Your task to perform on an android device: open sync settings in chrome Image 0: 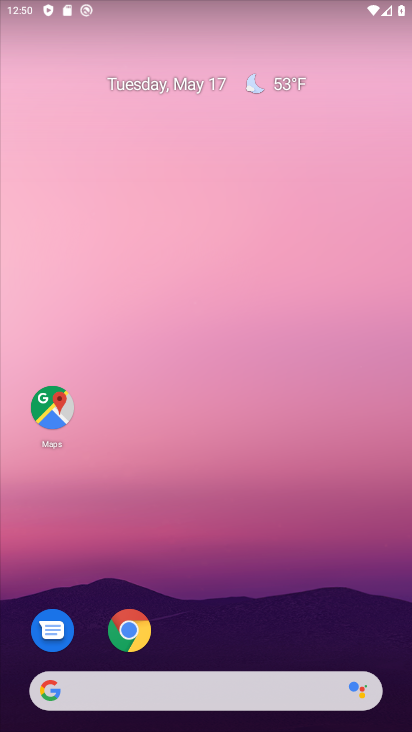
Step 0: drag from (204, 687) to (223, 135)
Your task to perform on an android device: open sync settings in chrome Image 1: 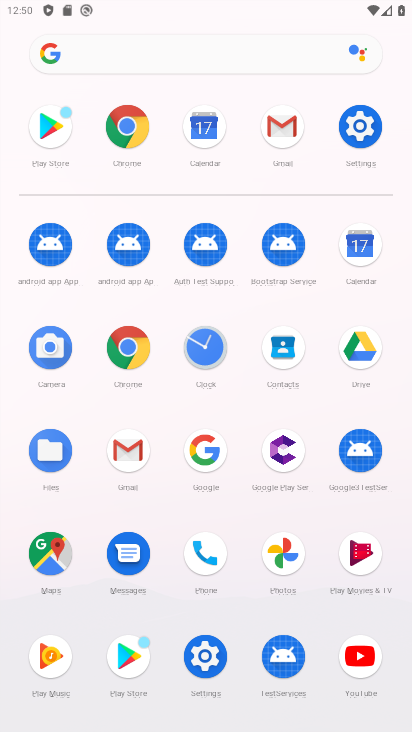
Step 1: click (126, 379)
Your task to perform on an android device: open sync settings in chrome Image 2: 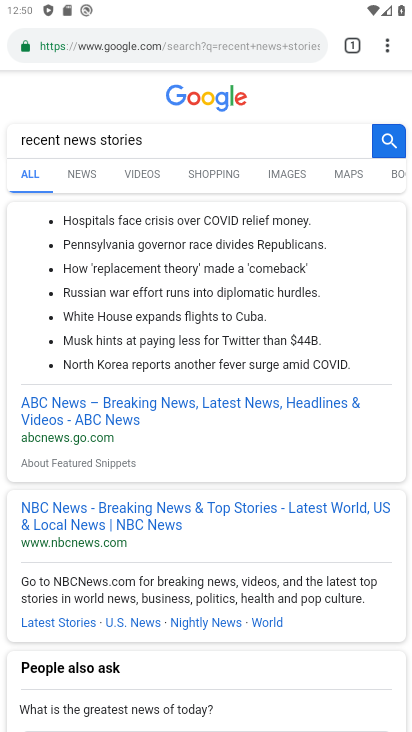
Step 2: click (387, 43)
Your task to perform on an android device: open sync settings in chrome Image 3: 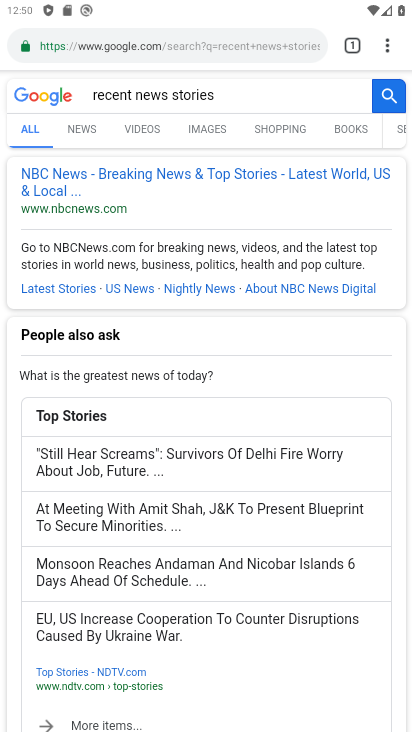
Step 3: click (389, 44)
Your task to perform on an android device: open sync settings in chrome Image 4: 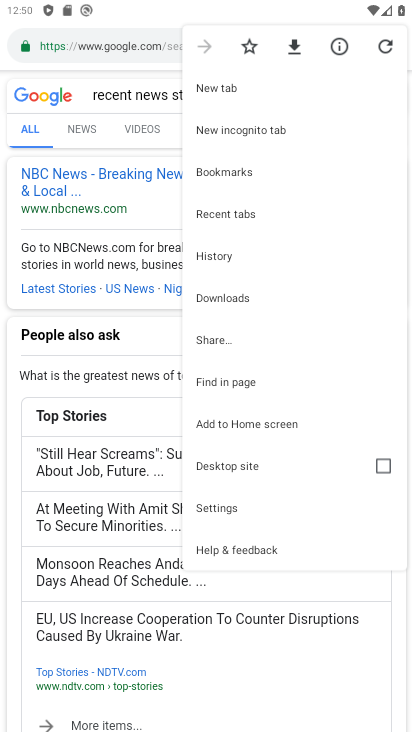
Step 4: click (168, 116)
Your task to perform on an android device: open sync settings in chrome Image 5: 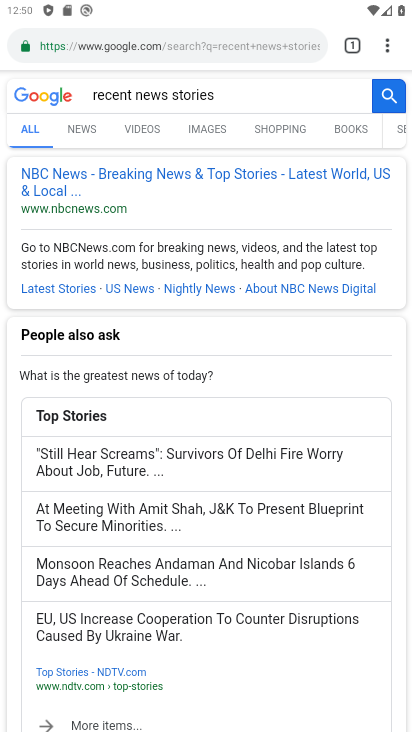
Step 5: click (391, 56)
Your task to perform on an android device: open sync settings in chrome Image 6: 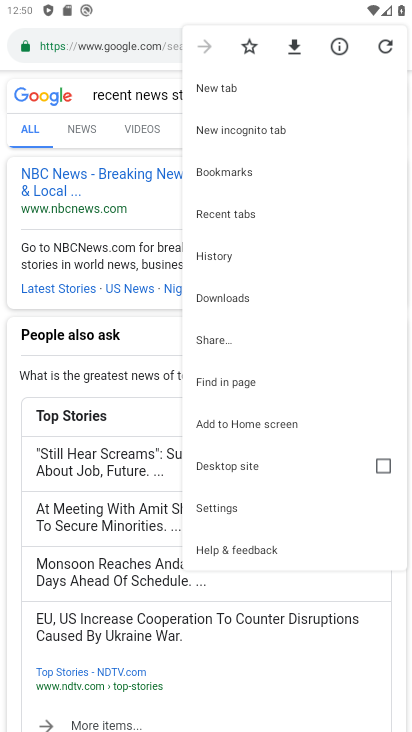
Step 6: click (221, 510)
Your task to perform on an android device: open sync settings in chrome Image 7: 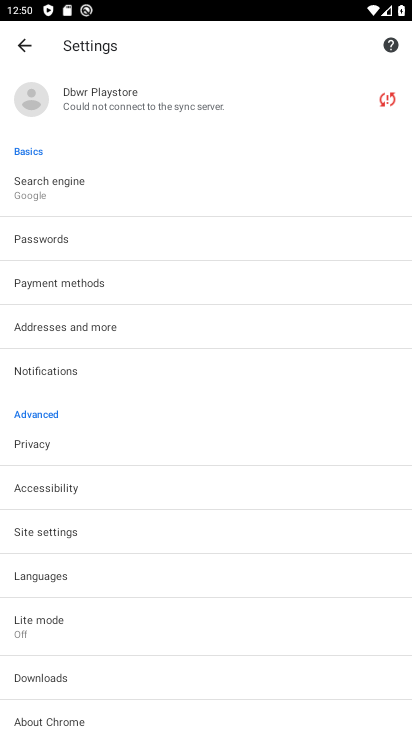
Step 7: click (123, 121)
Your task to perform on an android device: open sync settings in chrome Image 8: 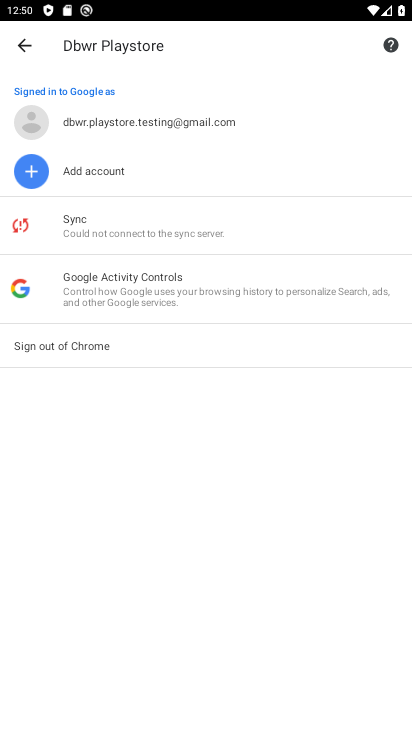
Step 8: click (169, 237)
Your task to perform on an android device: open sync settings in chrome Image 9: 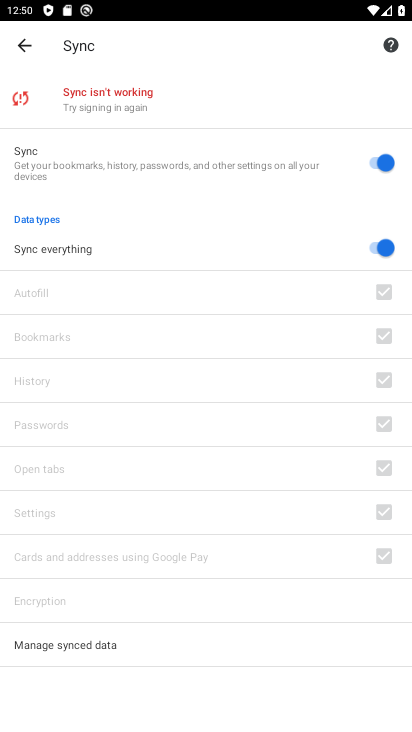
Step 9: task complete